Your task to perform on an android device: What's the weather? Image 0: 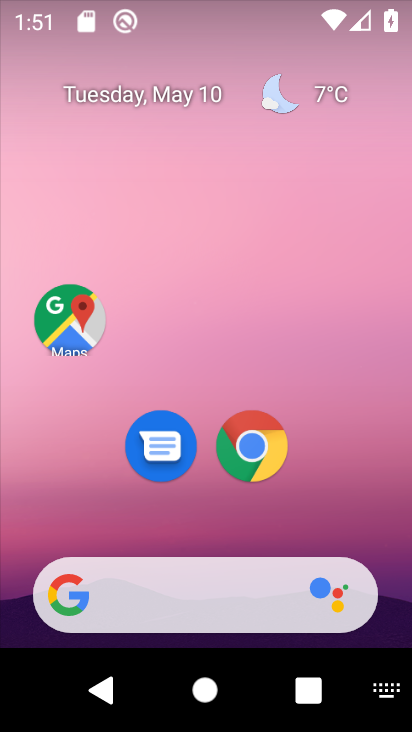
Step 0: drag from (307, 493) to (319, 95)
Your task to perform on an android device: What's the weather? Image 1: 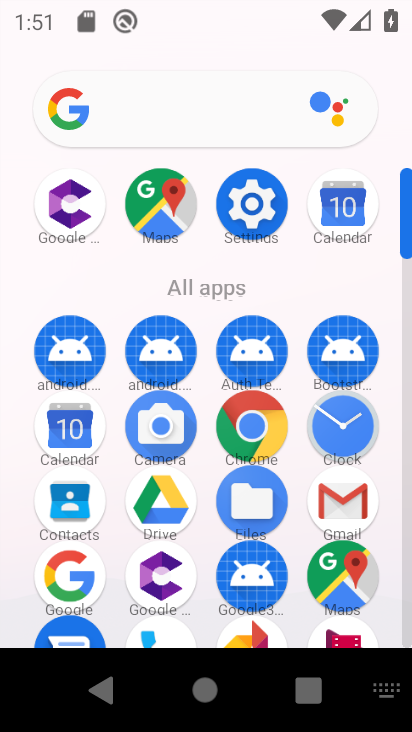
Step 1: click (78, 579)
Your task to perform on an android device: What's the weather? Image 2: 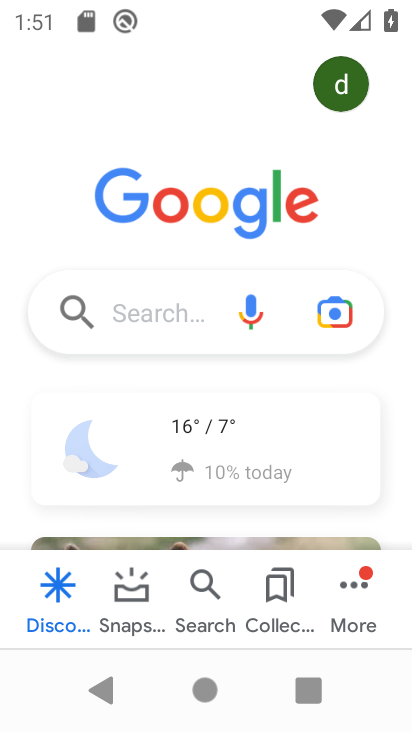
Step 2: click (143, 308)
Your task to perform on an android device: What's the weather? Image 3: 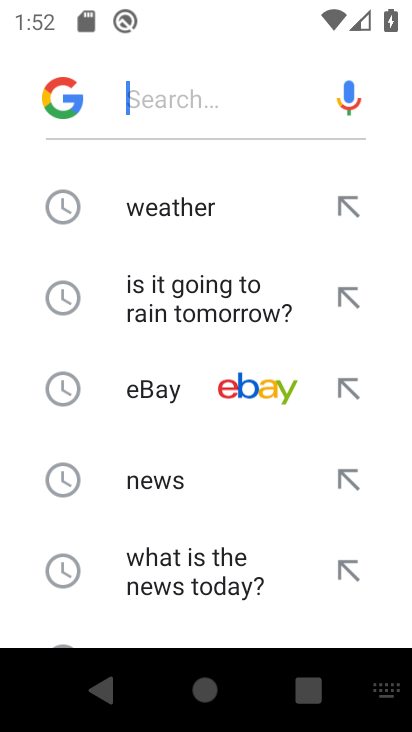
Step 3: type "whats the weather"
Your task to perform on an android device: What's the weather? Image 4: 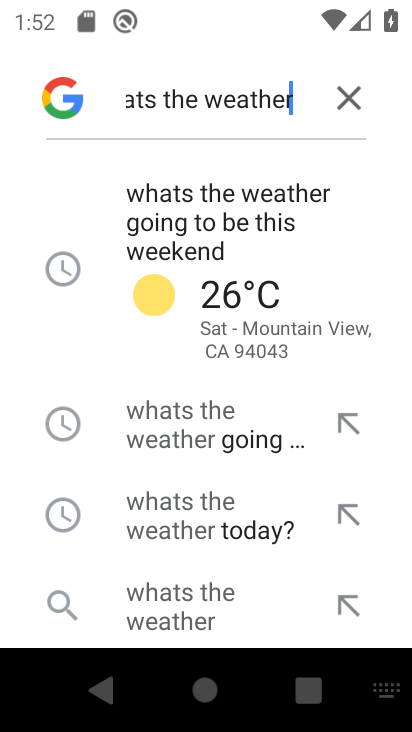
Step 4: click (227, 442)
Your task to perform on an android device: What's the weather? Image 5: 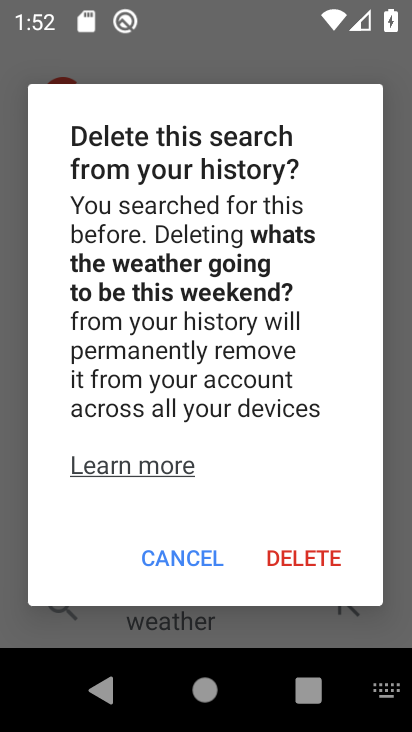
Step 5: click (187, 553)
Your task to perform on an android device: What's the weather? Image 6: 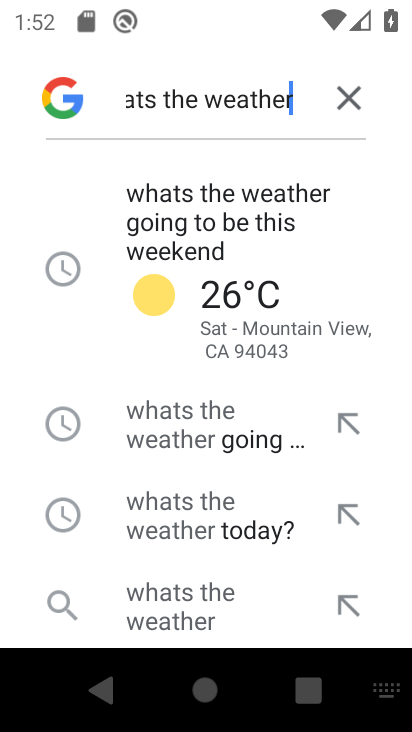
Step 6: drag from (204, 514) to (245, 265)
Your task to perform on an android device: What's the weather? Image 7: 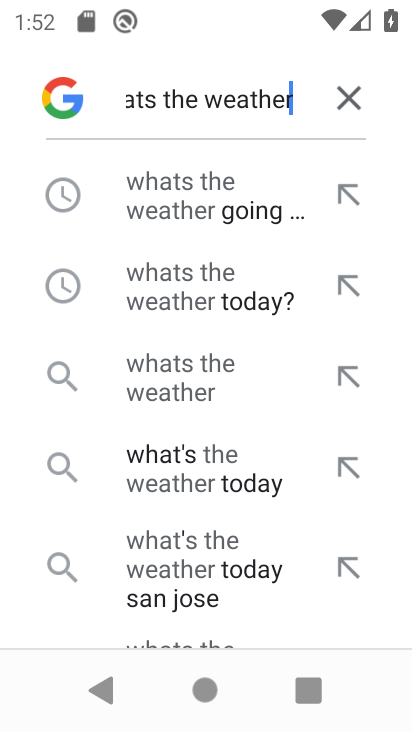
Step 7: click (218, 393)
Your task to perform on an android device: What's the weather? Image 8: 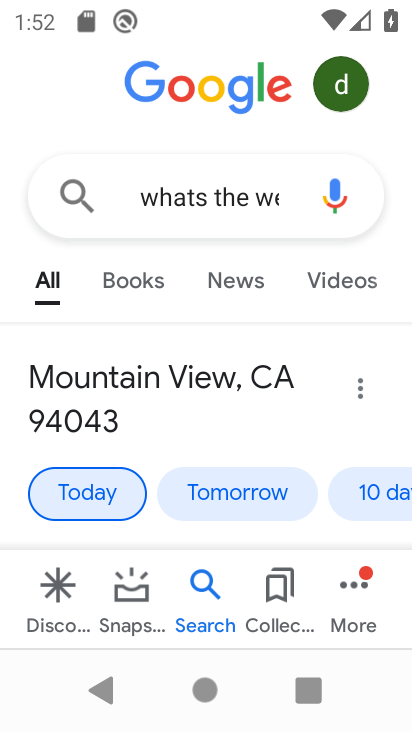
Step 8: task complete